Your task to perform on an android device: clear history in the chrome app Image 0: 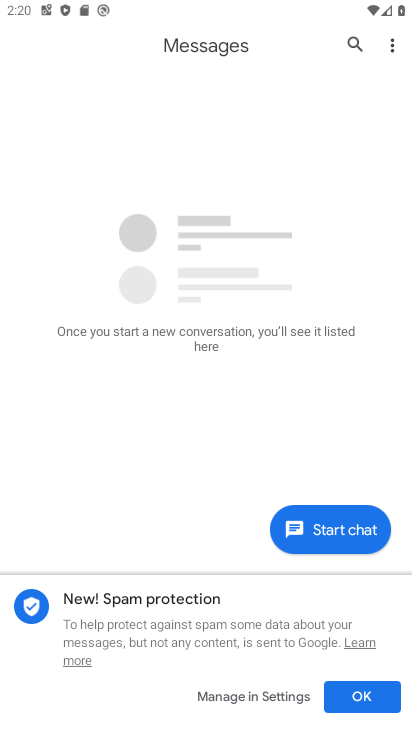
Step 0: press home button
Your task to perform on an android device: clear history in the chrome app Image 1: 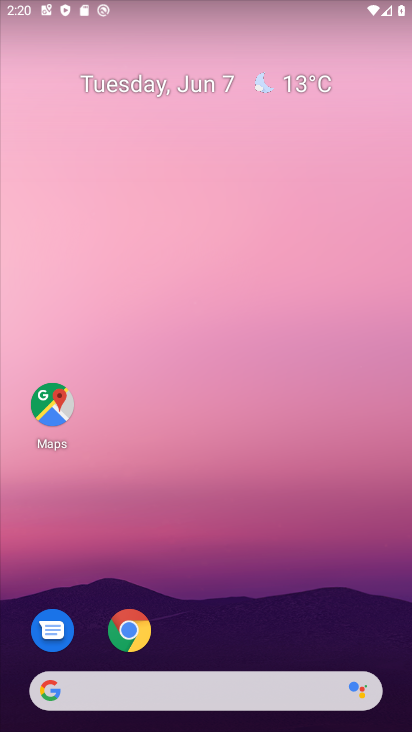
Step 1: click (116, 626)
Your task to perform on an android device: clear history in the chrome app Image 2: 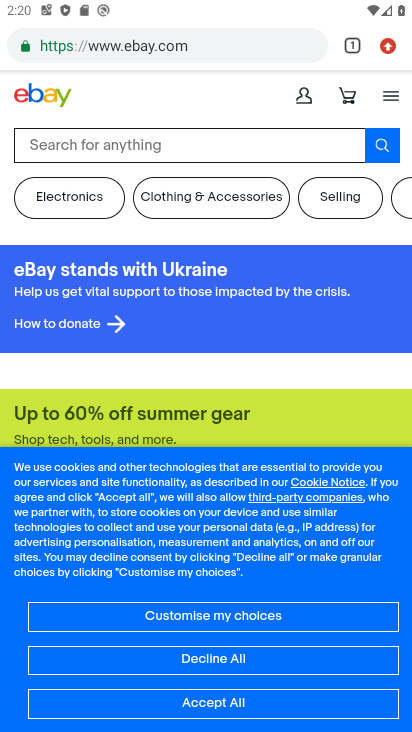
Step 2: click (352, 37)
Your task to perform on an android device: clear history in the chrome app Image 3: 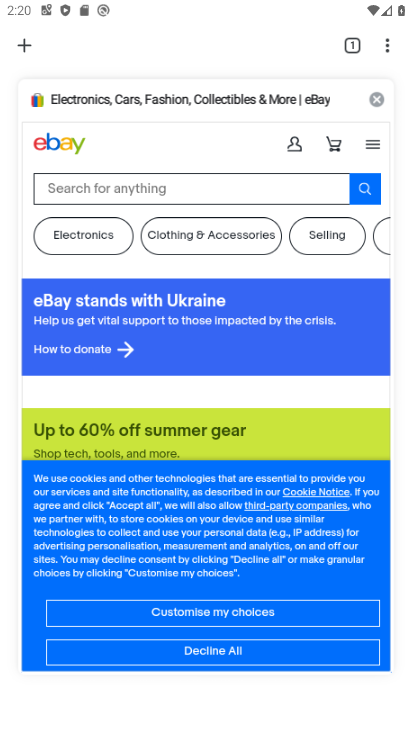
Step 3: click (381, 42)
Your task to perform on an android device: clear history in the chrome app Image 4: 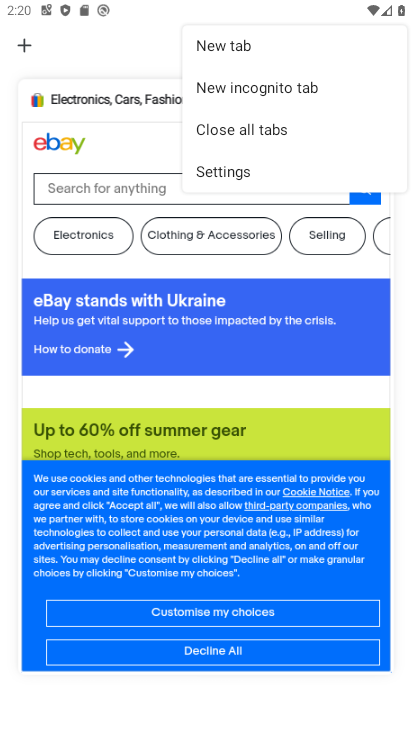
Step 4: click (257, 176)
Your task to perform on an android device: clear history in the chrome app Image 5: 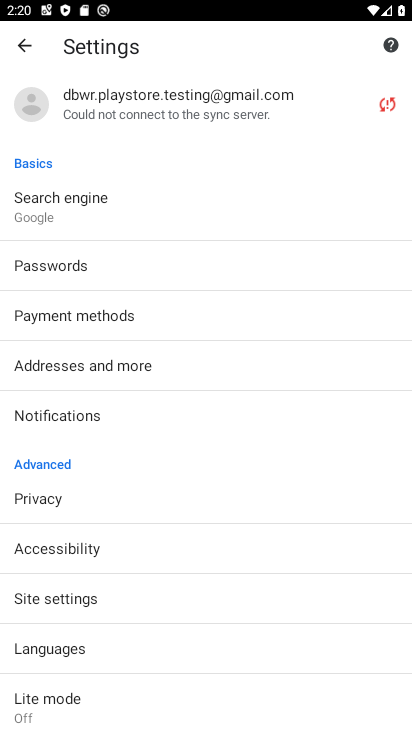
Step 5: click (186, 492)
Your task to perform on an android device: clear history in the chrome app Image 6: 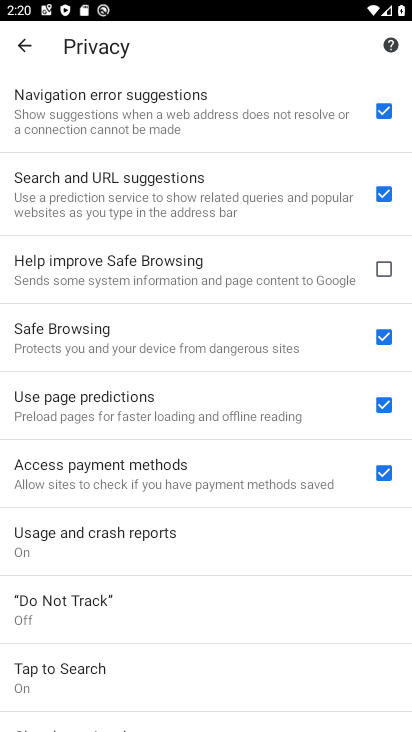
Step 6: drag from (222, 679) to (274, 6)
Your task to perform on an android device: clear history in the chrome app Image 7: 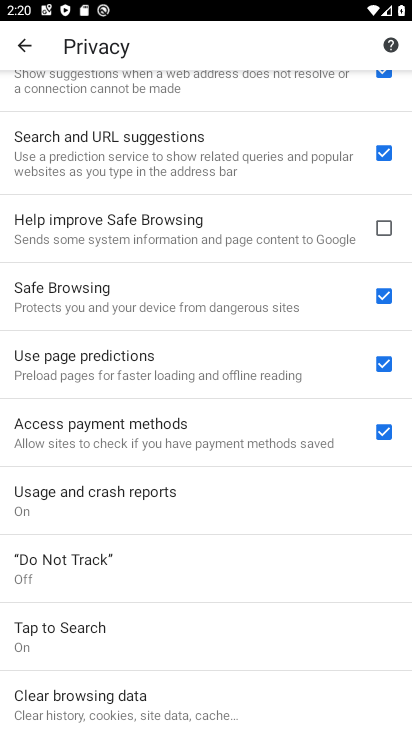
Step 7: click (198, 694)
Your task to perform on an android device: clear history in the chrome app Image 8: 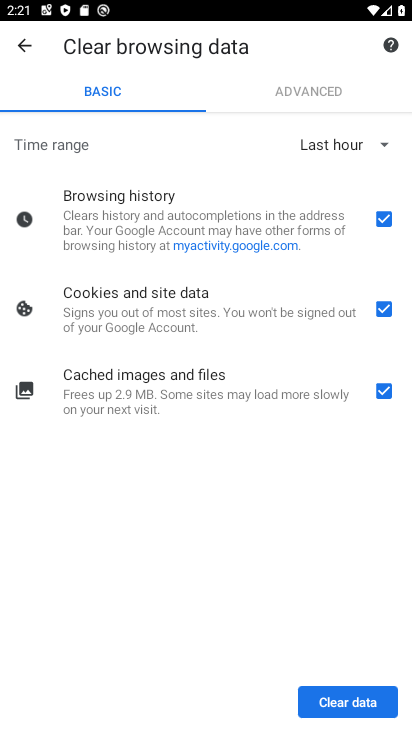
Step 8: click (363, 311)
Your task to perform on an android device: clear history in the chrome app Image 9: 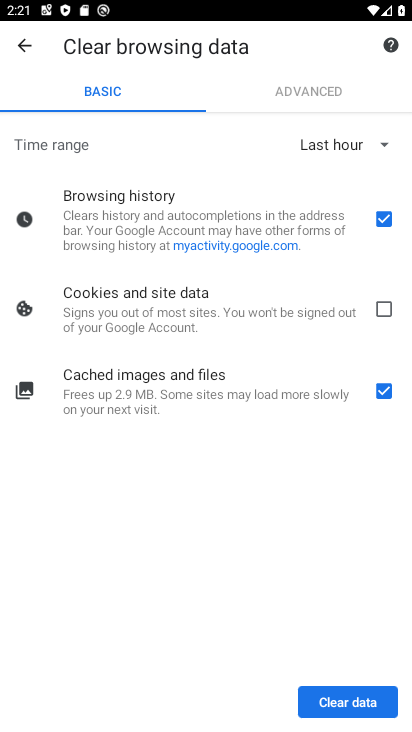
Step 9: click (383, 385)
Your task to perform on an android device: clear history in the chrome app Image 10: 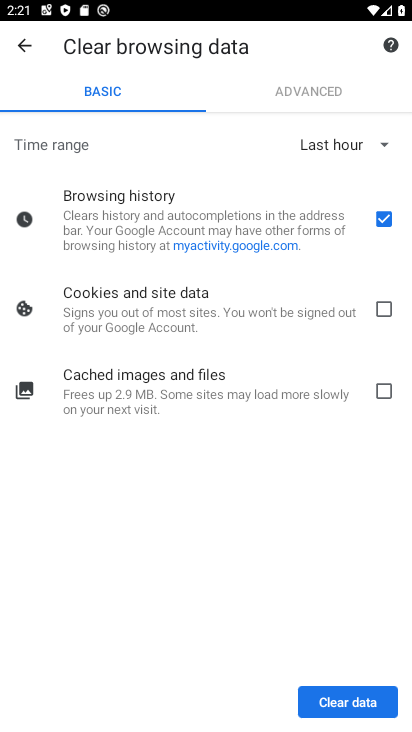
Step 10: click (386, 695)
Your task to perform on an android device: clear history in the chrome app Image 11: 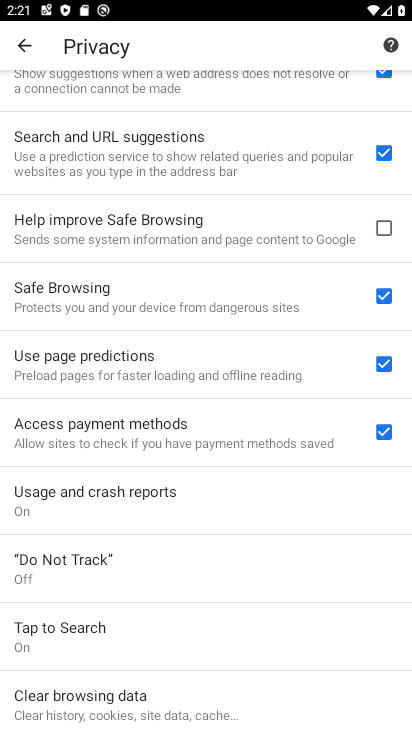
Step 11: task complete